Your task to perform on an android device: Empty the shopping cart on costco. Add "usb-a" to the cart on costco, then select checkout. Image 0: 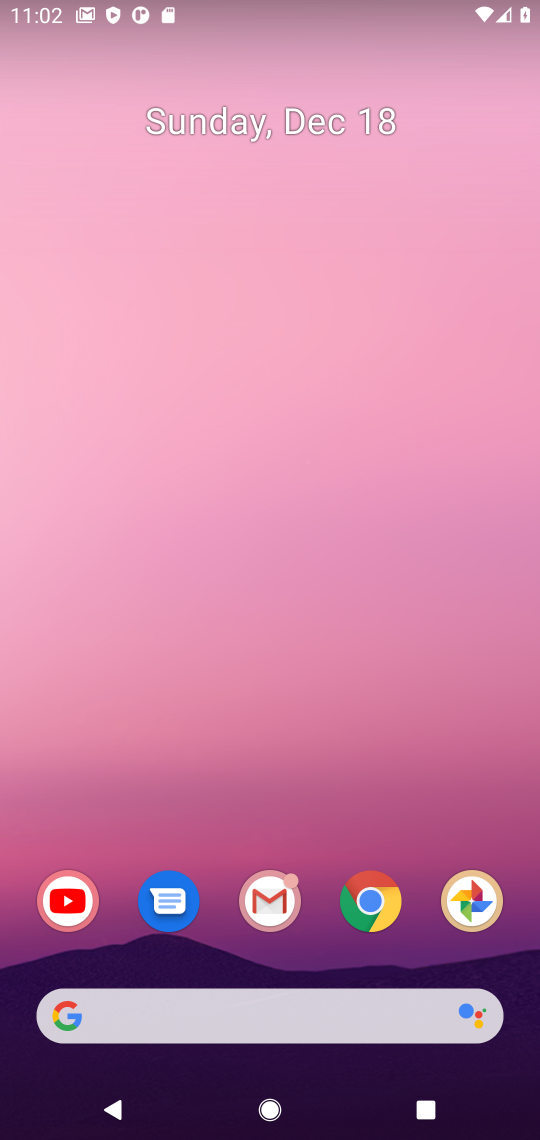
Step 0: click (385, 898)
Your task to perform on an android device: Empty the shopping cart on costco. Add "usb-a" to the cart on costco, then select checkout. Image 1: 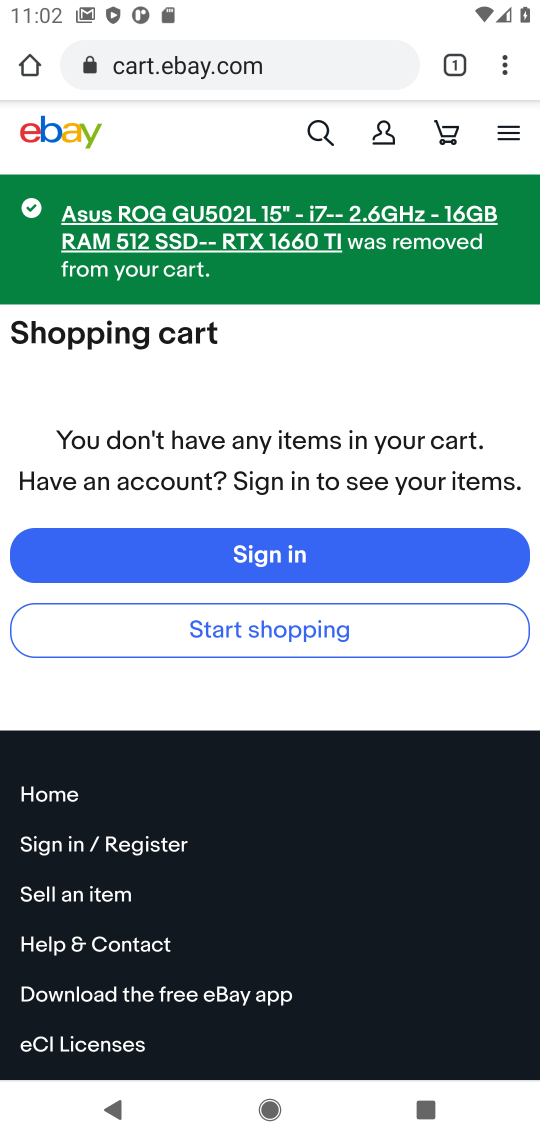
Step 1: click (276, 65)
Your task to perform on an android device: Empty the shopping cart on costco. Add "usb-a" to the cart on costco, then select checkout. Image 2: 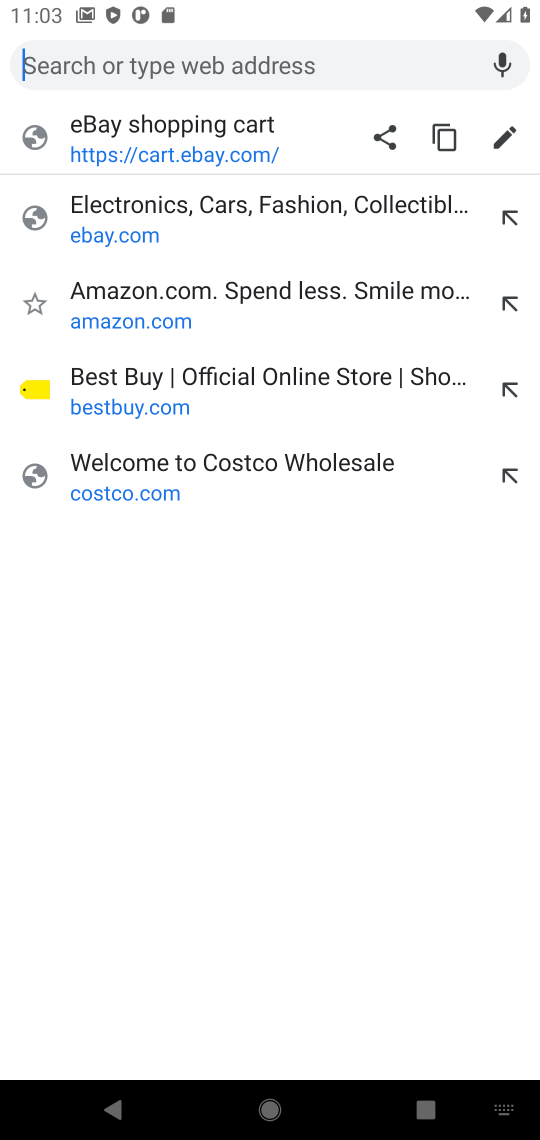
Step 2: type "costco"
Your task to perform on an android device: Empty the shopping cart on costco. Add "usb-a" to the cart on costco, then select checkout. Image 3: 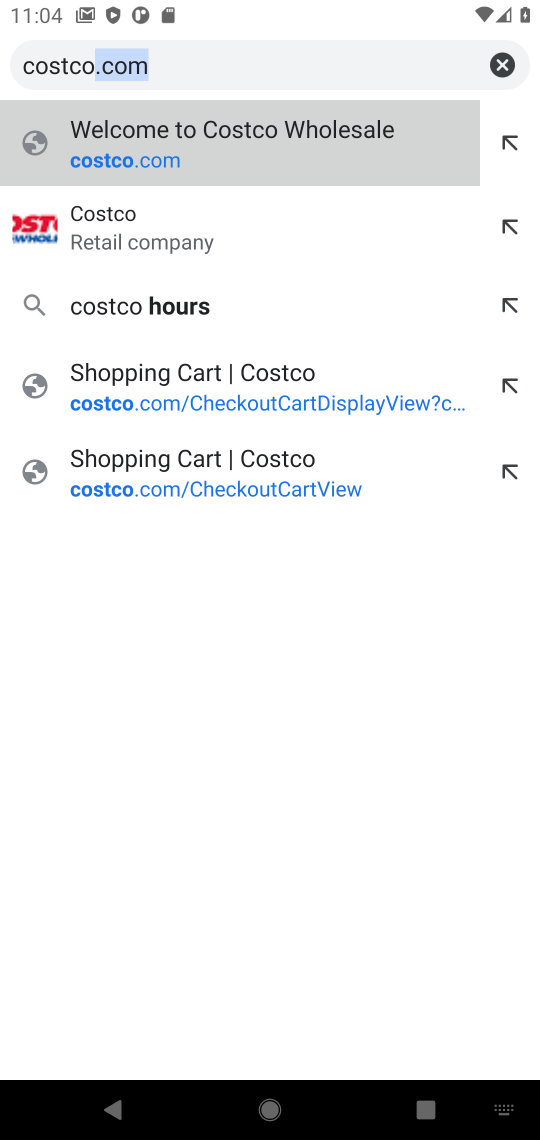
Step 3: click (224, 151)
Your task to perform on an android device: Empty the shopping cart on costco. Add "usb-a" to the cart on costco, then select checkout. Image 4: 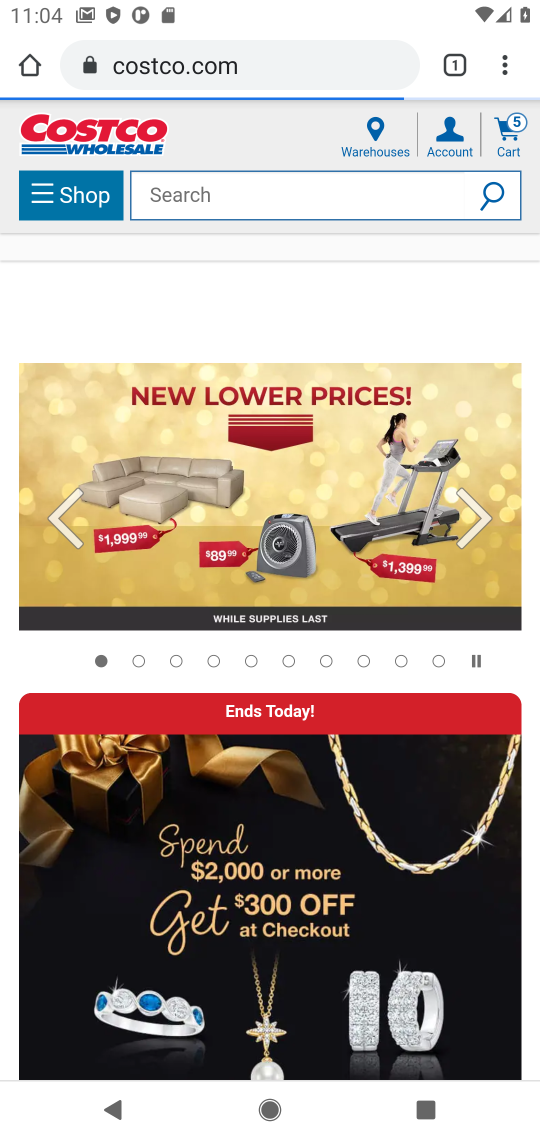
Step 4: click (323, 199)
Your task to perform on an android device: Empty the shopping cart on costco. Add "usb-a" to the cart on costco, then select checkout. Image 5: 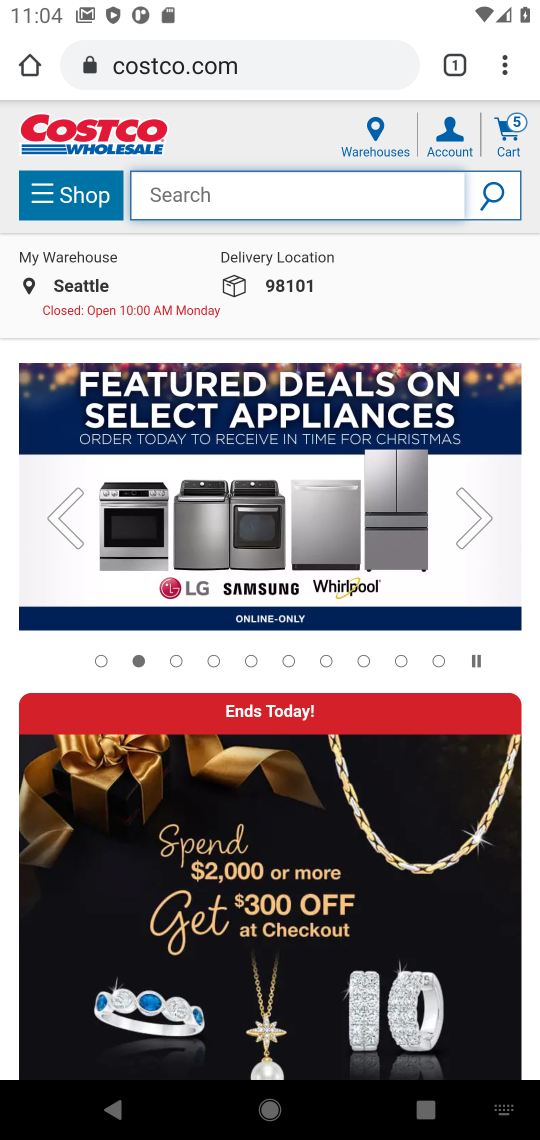
Step 5: type "usb-a "
Your task to perform on an android device: Empty the shopping cart on costco. Add "usb-a" to the cart on costco, then select checkout. Image 6: 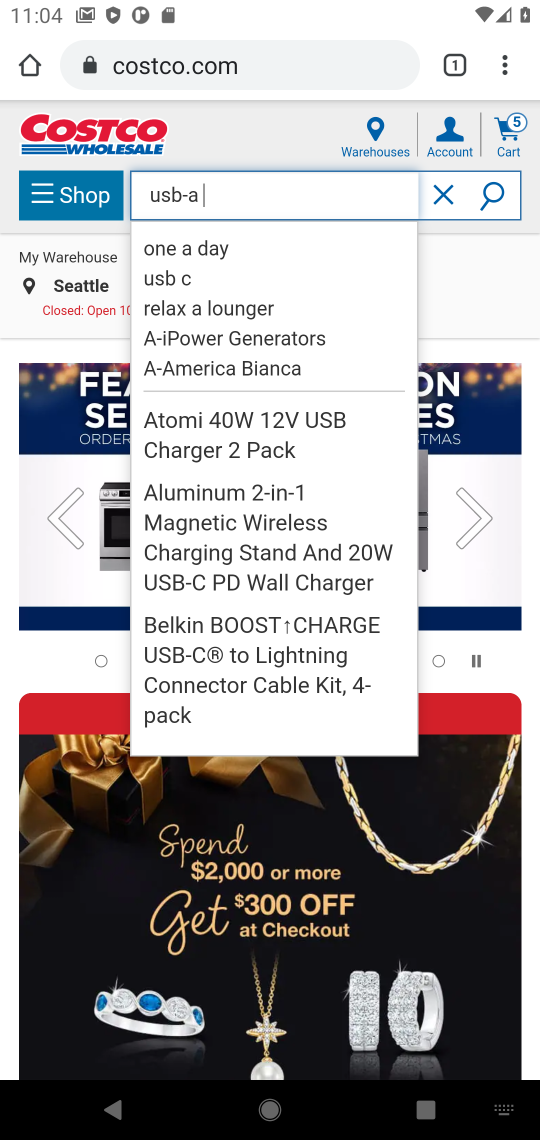
Step 6: click (502, 194)
Your task to perform on an android device: Empty the shopping cart on costco. Add "usb-a" to the cart on costco, then select checkout. Image 7: 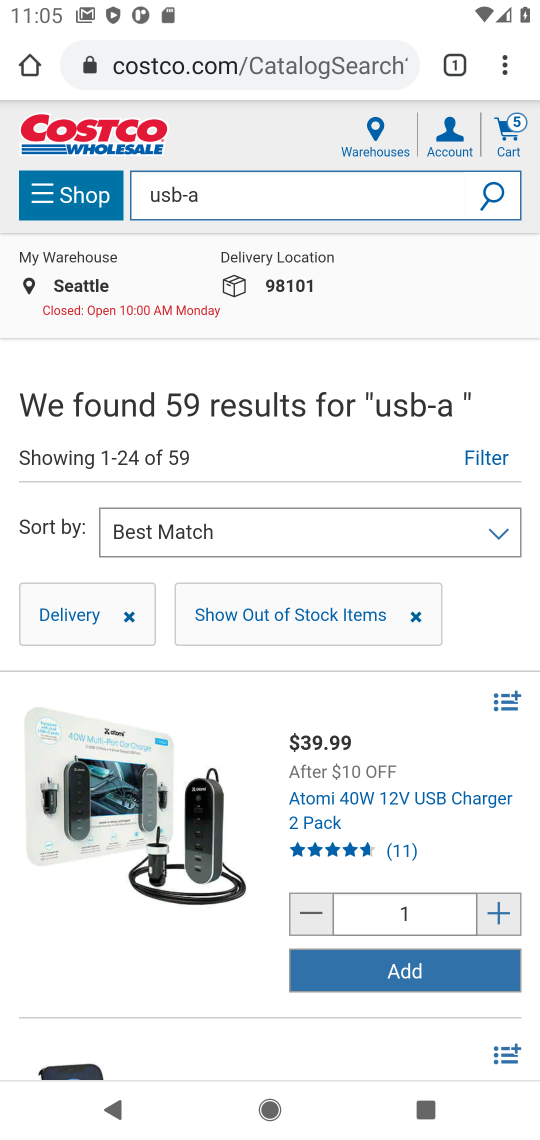
Step 7: task complete